Your task to perform on an android device: all mails in gmail Image 0: 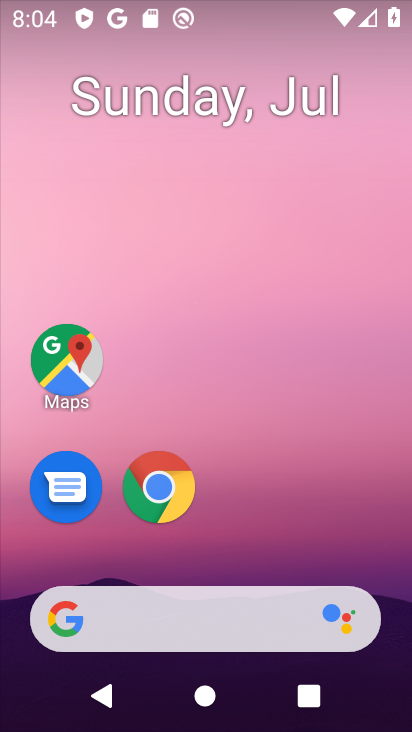
Step 0: drag from (260, 539) to (318, 20)
Your task to perform on an android device: all mails in gmail Image 1: 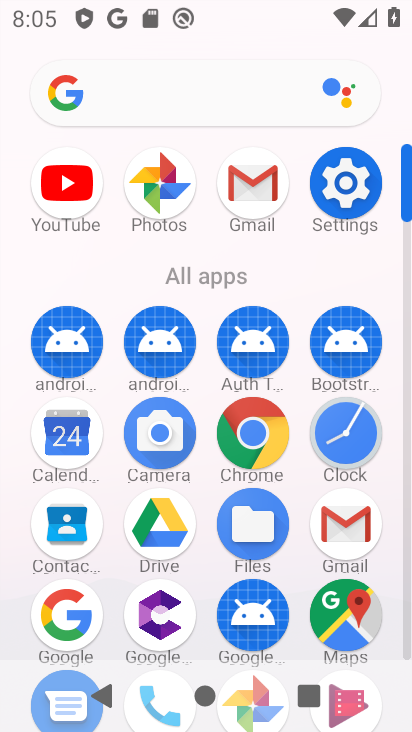
Step 1: click (256, 187)
Your task to perform on an android device: all mails in gmail Image 2: 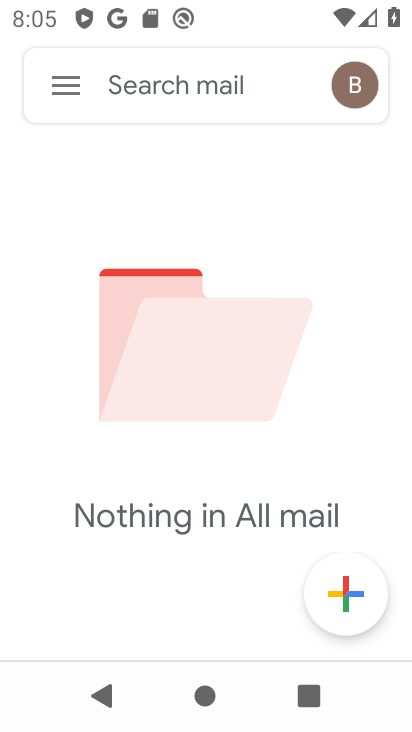
Step 2: task complete